Your task to perform on an android device: read, delete, or share a saved page in the chrome app Image 0: 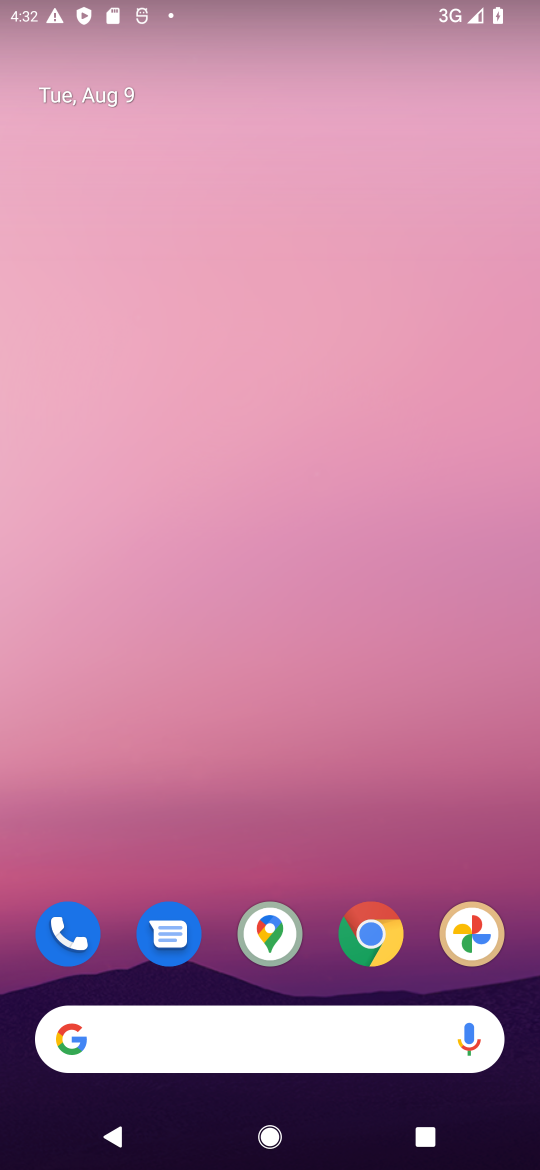
Step 0: click (381, 943)
Your task to perform on an android device: read, delete, or share a saved page in the chrome app Image 1: 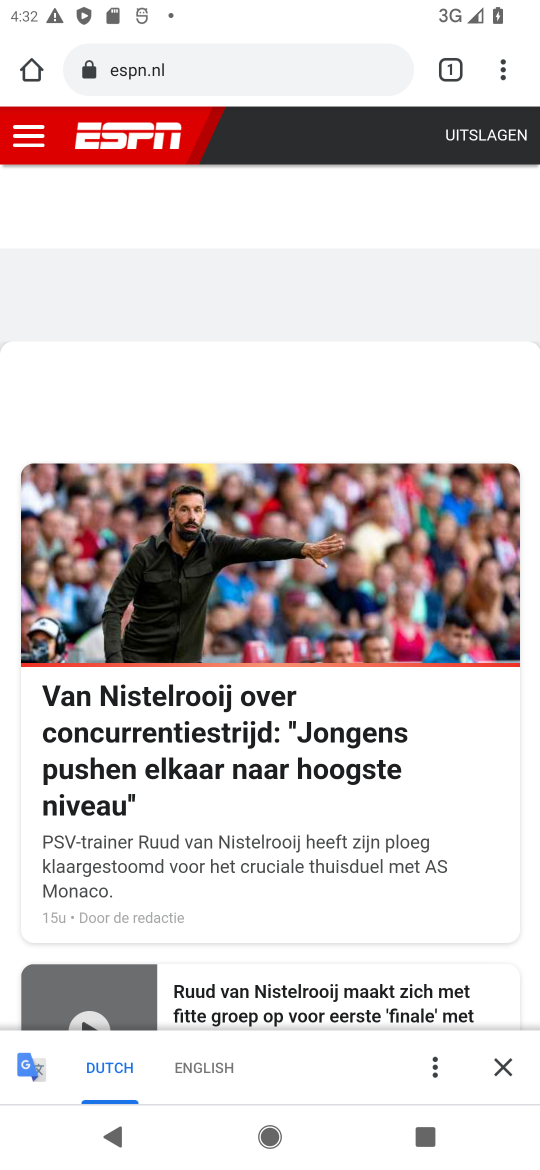
Step 1: click (500, 71)
Your task to perform on an android device: read, delete, or share a saved page in the chrome app Image 2: 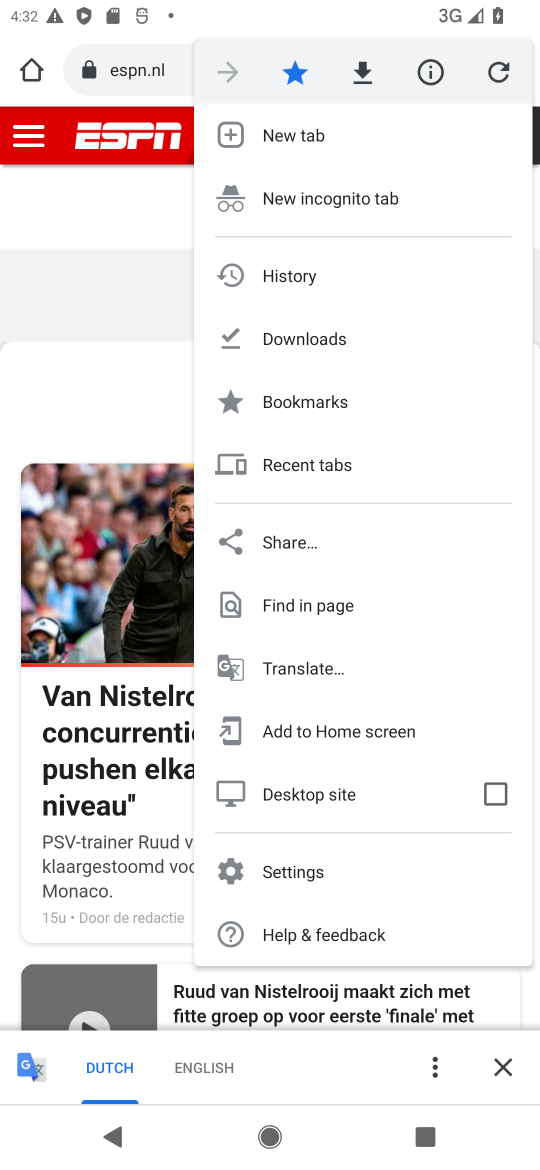
Step 2: click (286, 465)
Your task to perform on an android device: read, delete, or share a saved page in the chrome app Image 3: 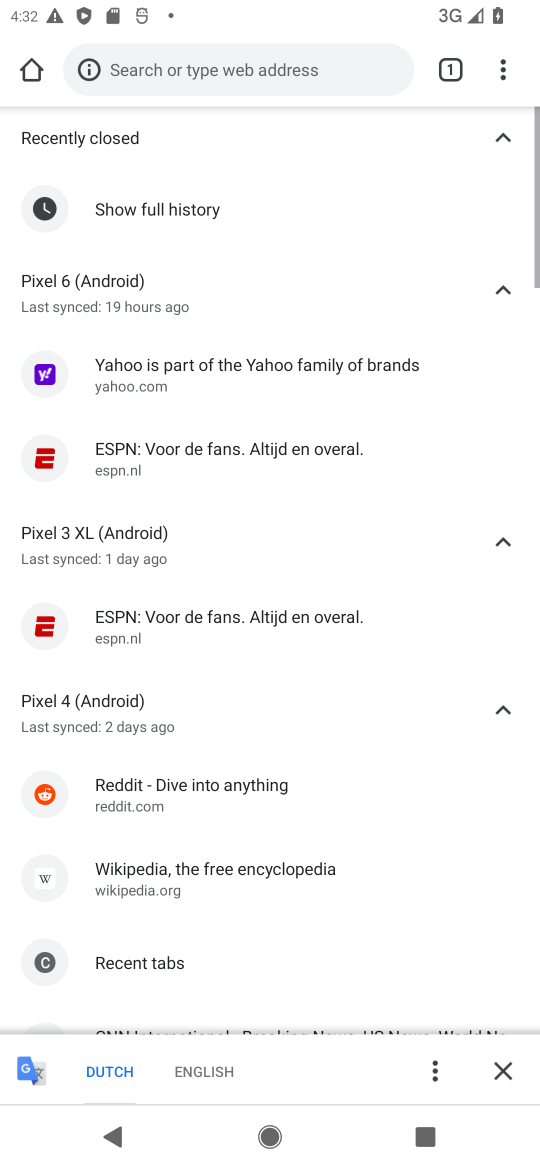
Step 3: task complete